Your task to perform on an android device: empty trash in google photos Image 0: 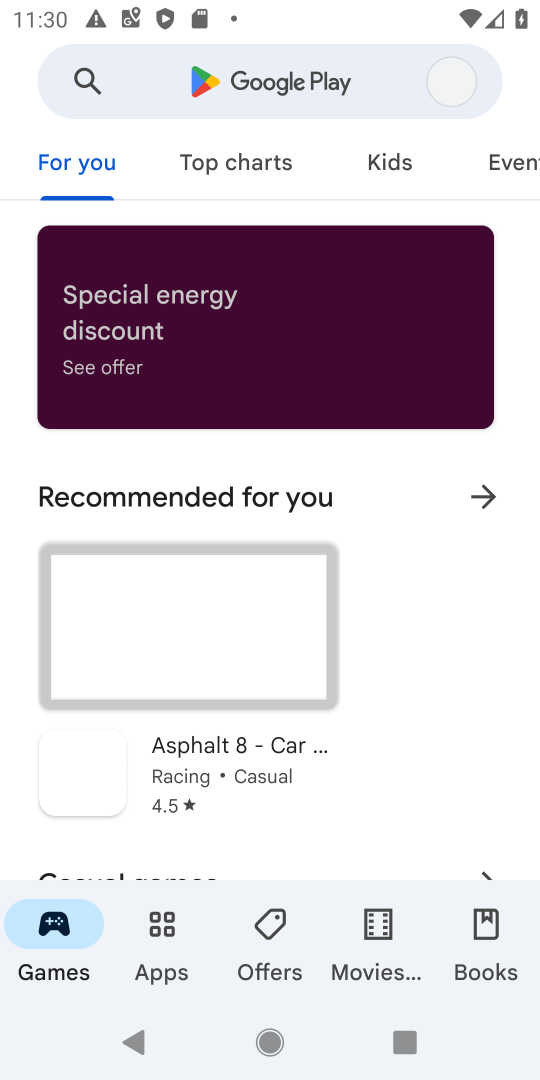
Step 0: press home button
Your task to perform on an android device: empty trash in google photos Image 1: 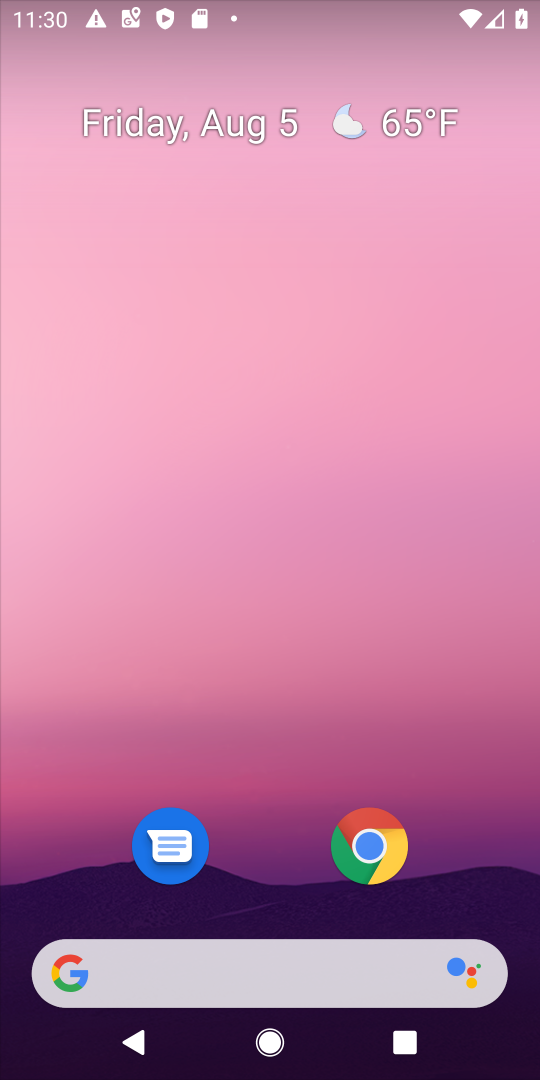
Step 1: drag from (292, 828) to (364, 36)
Your task to perform on an android device: empty trash in google photos Image 2: 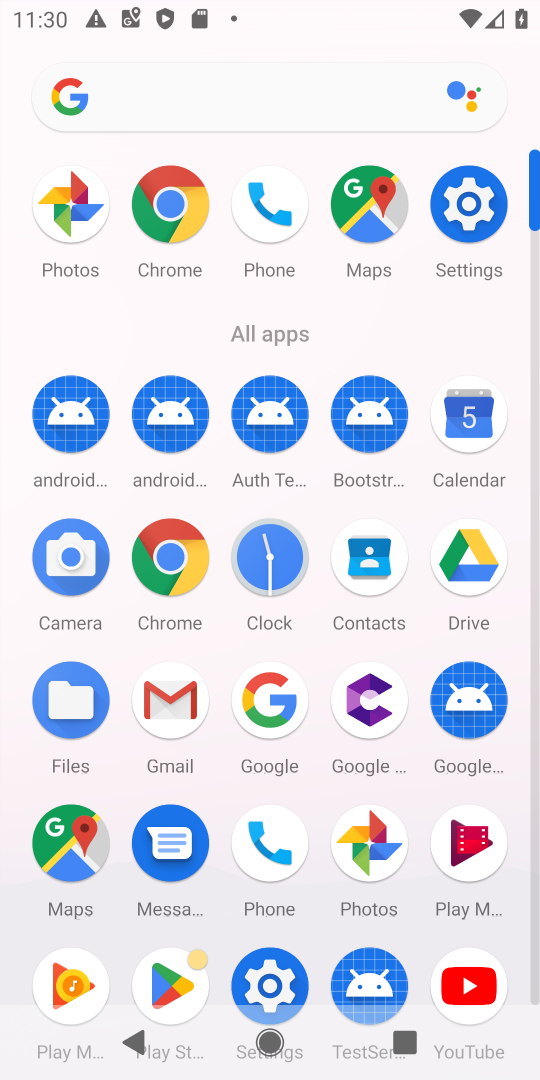
Step 2: click (81, 201)
Your task to perform on an android device: empty trash in google photos Image 3: 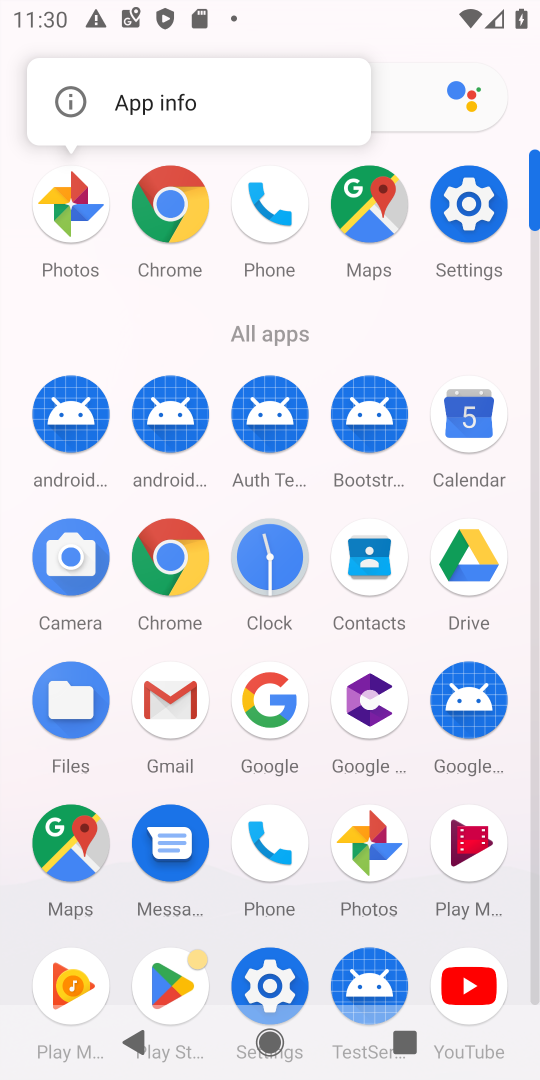
Step 3: click (81, 200)
Your task to perform on an android device: empty trash in google photos Image 4: 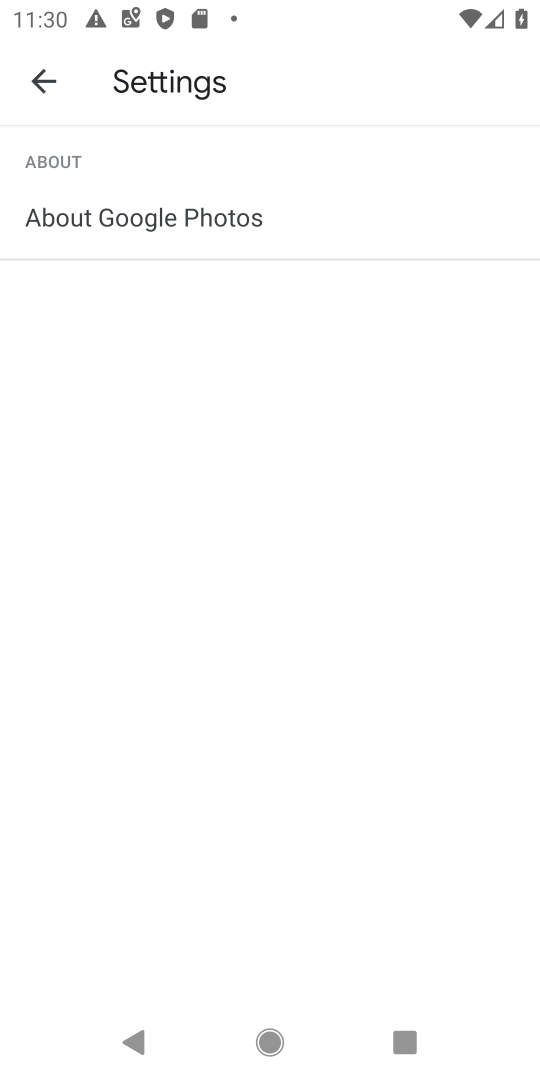
Step 4: click (42, 80)
Your task to perform on an android device: empty trash in google photos Image 5: 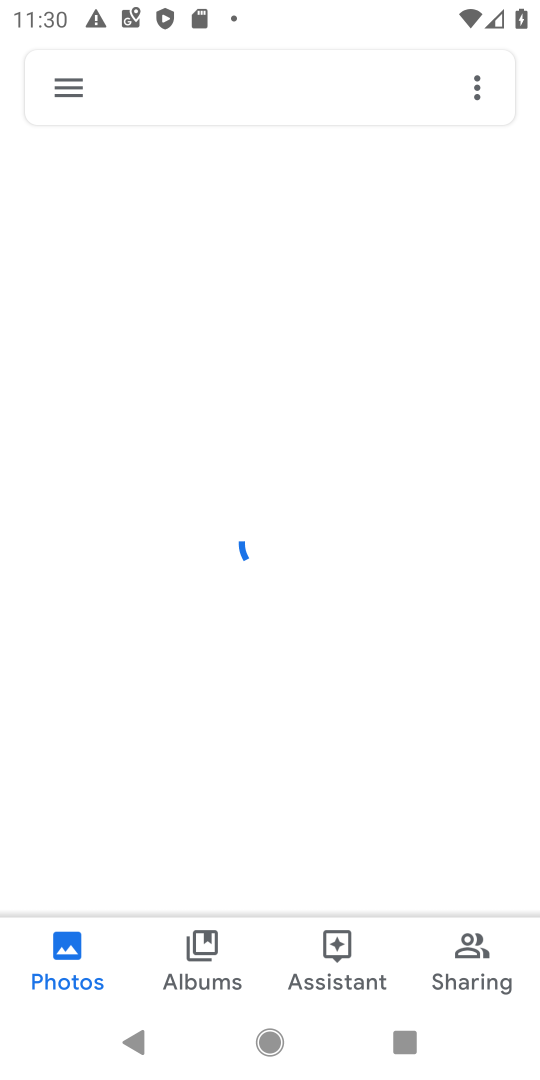
Step 5: click (60, 80)
Your task to perform on an android device: empty trash in google photos Image 6: 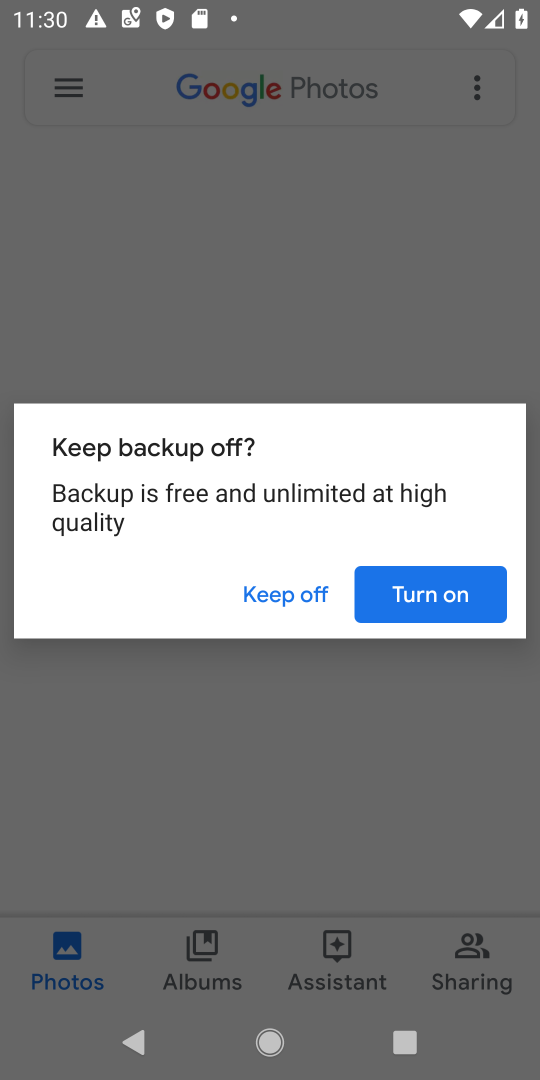
Step 6: click (431, 589)
Your task to perform on an android device: empty trash in google photos Image 7: 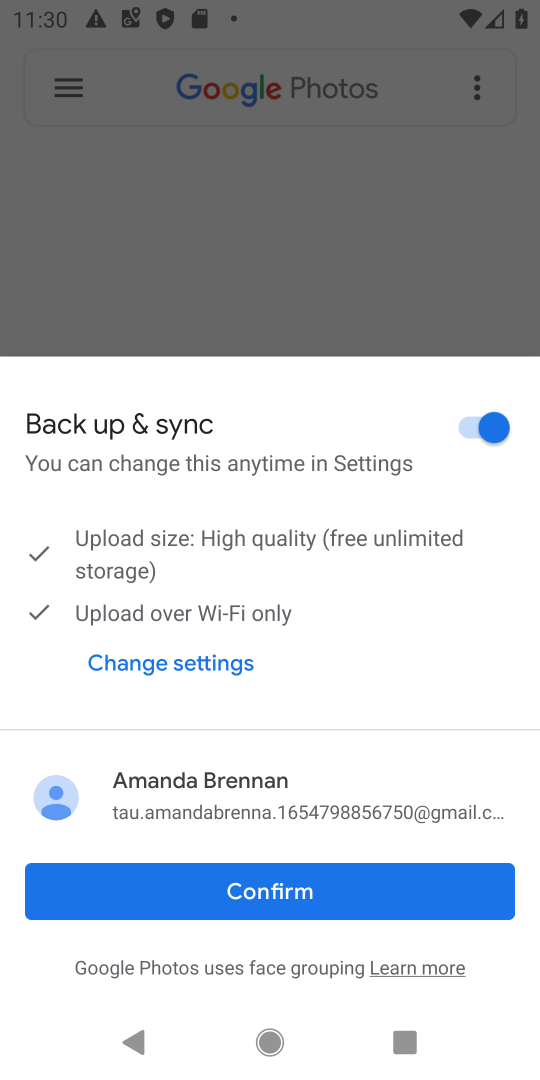
Step 7: click (377, 886)
Your task to perform on an android device: empty trash in google photos Image 8: 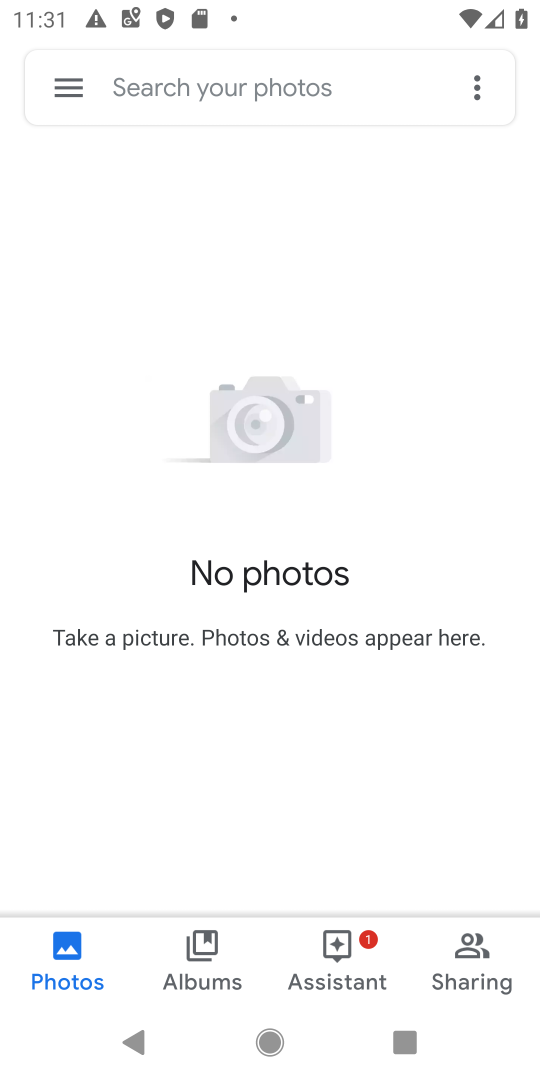
Step 8: click (65, 87)
Your task to perform on an android device: empty trash in google photos Image 9: 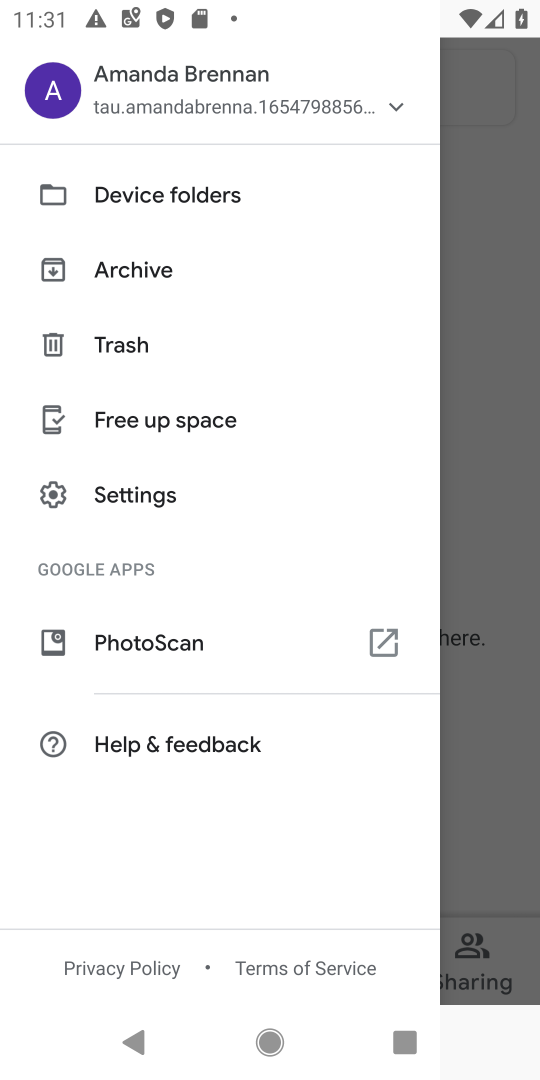
Step 9: click (101, 341)
Your task to perform on an android device: empty trash in google photos Image 10: 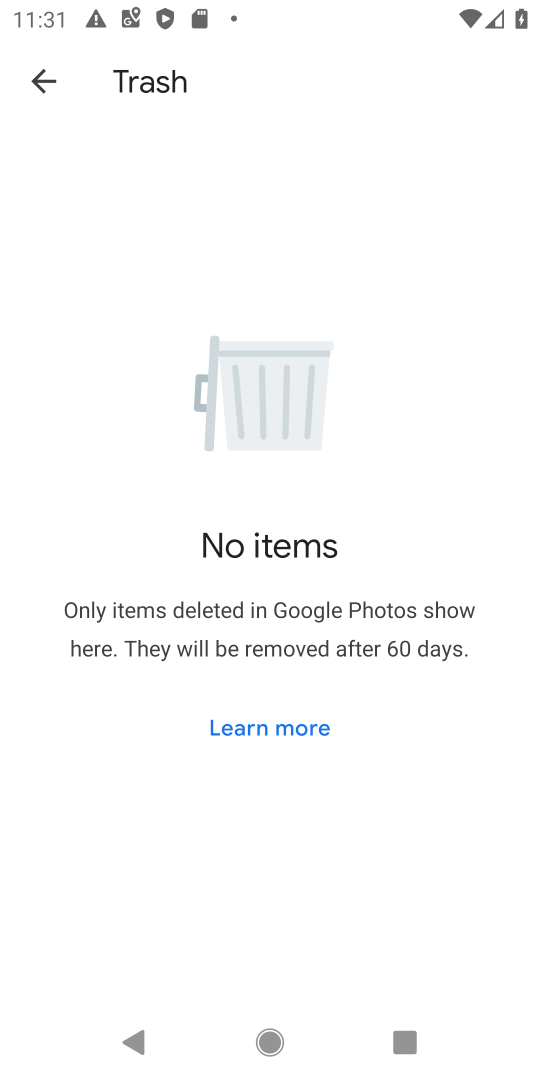
Step 10: task complete